Your task to perform on an android device: empty trash in google photos Image 0: 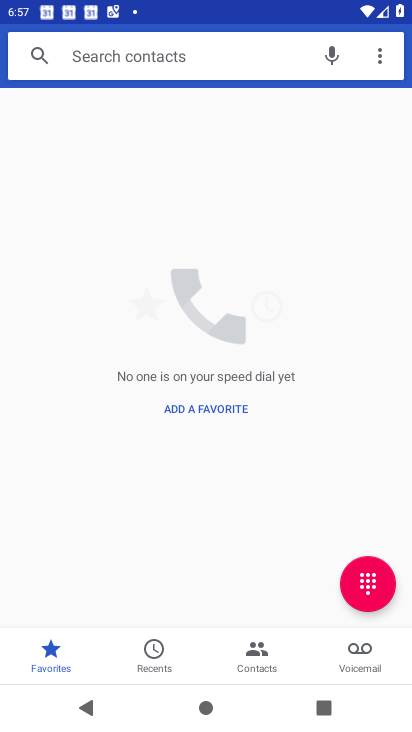
Step 0: press home button
Your task to perform on an android device: empty trash in google photos Image 1: 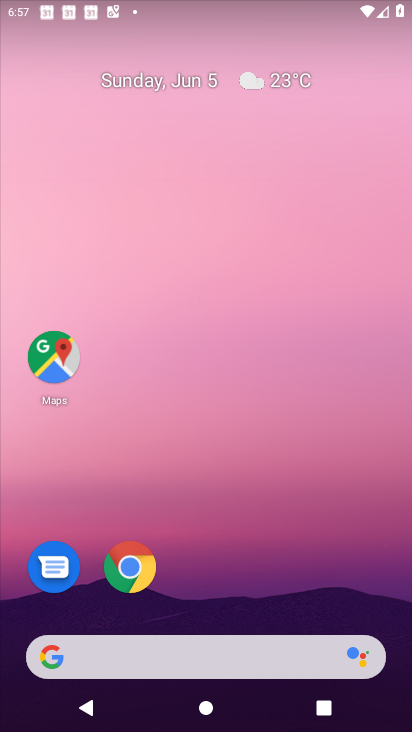
Step 1: drag from (371, 603) to (294, 9)
Your task to perform on an android device: empty trash in google photos Image 2: 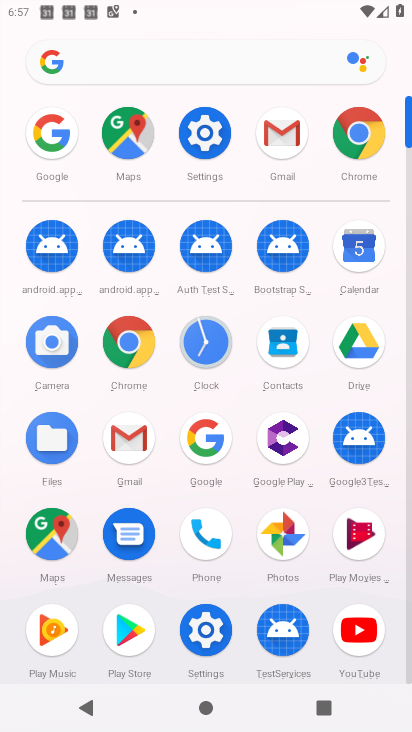
Step 2: click (301, 532)
Your task to perform on an android device: empty trash in google photos Image 3: 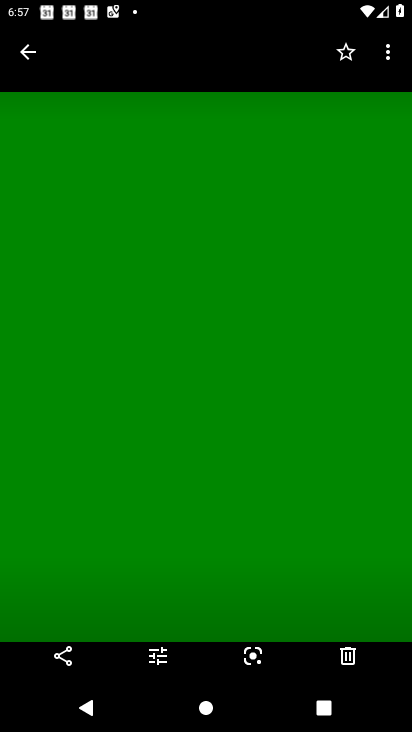
Step 3: press back button
Your task to perform on an android device: empty trash in google photos Image 4: 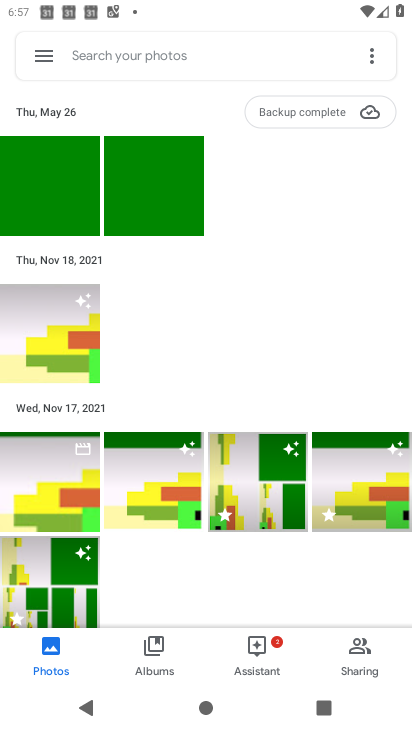
Step 4: click (38, 57)
Your task to perform on an android device: empty trash in google photos Image 5: 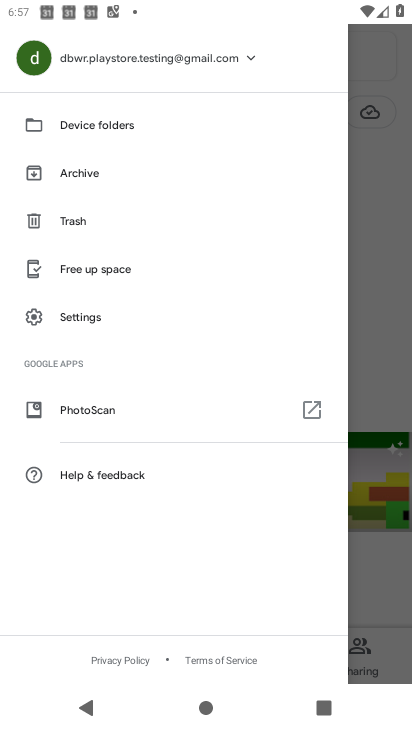
Step 5: click (97, 325)
Your task to perform on an android device: empty trash in google photos Image 6: 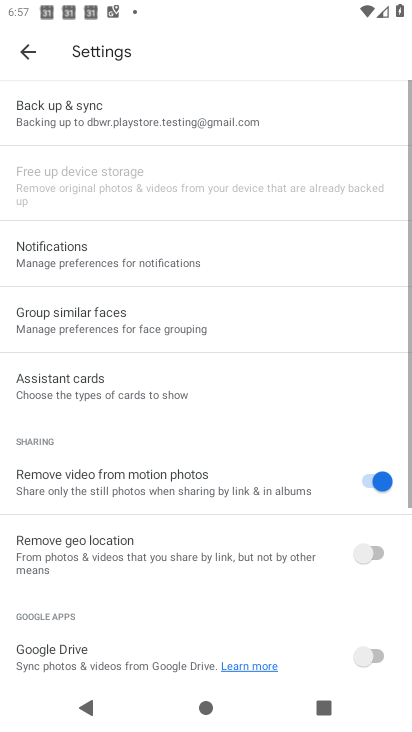
Step 6: press back button
Your task to perform on an android device: empty trash in google photos Image 7: 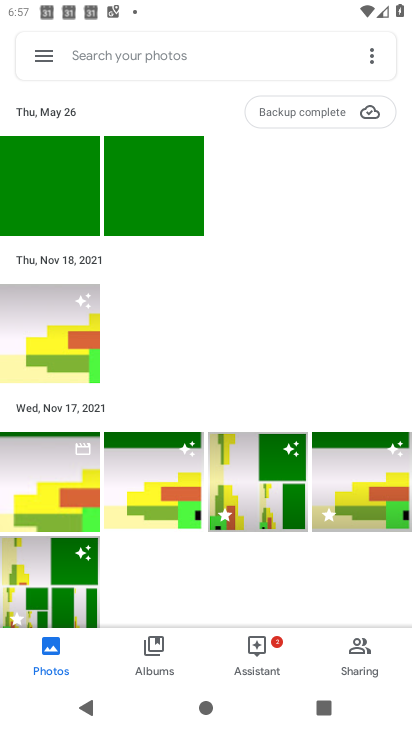
Step 7: click (32, 45)
Your task to perform on an android device: empty trash in google photos Image 8: 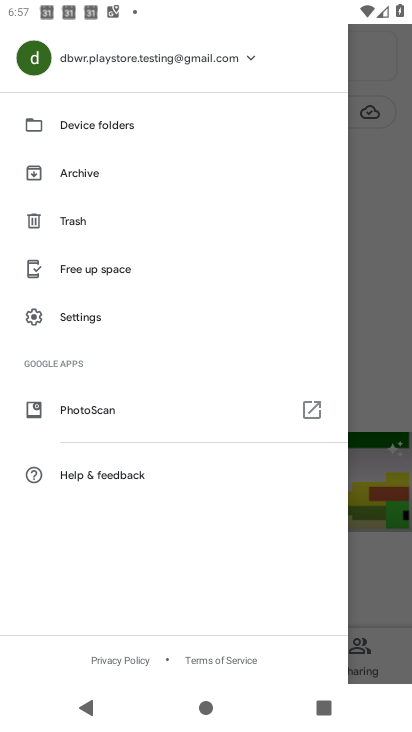
Step 8: click (111, 217)
Your task to perform on an android device: empty trash in google photos Image 9: 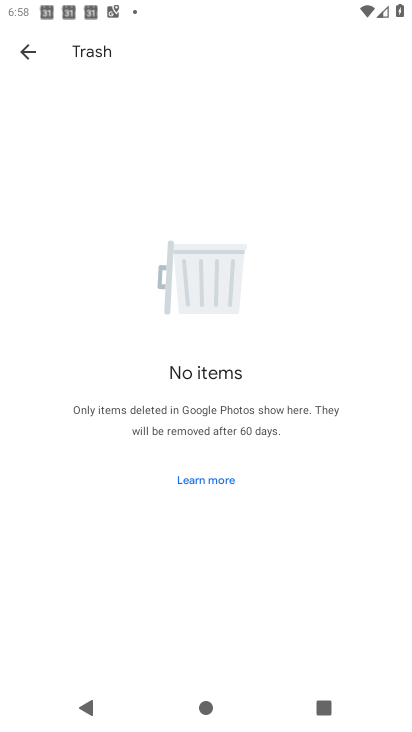
Step 9: task complete